Your task to perform on an android device: What is the recent news? Image 0: 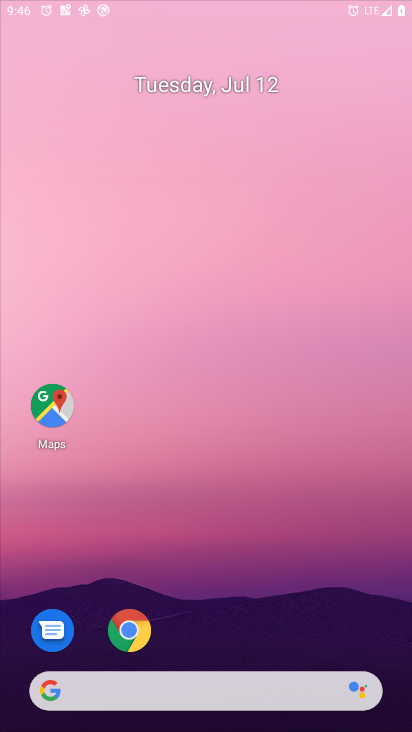
Step 0: press home button
Your task to perform on an android device: What is the recent news? Image 1: 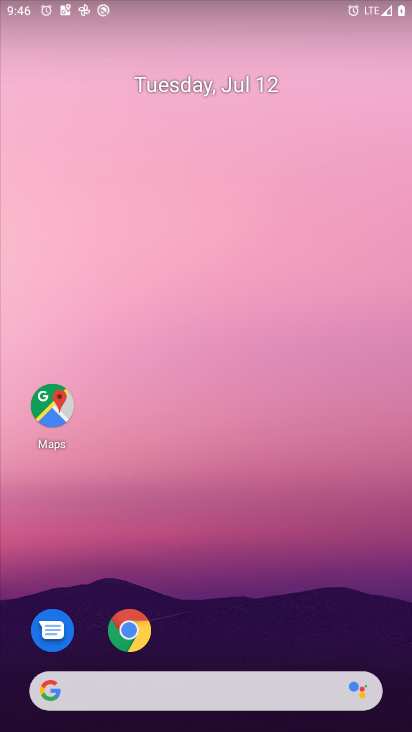
Step 1: click (179, 701)
Your task to perform on an android device: What is the recent news? Image 2: 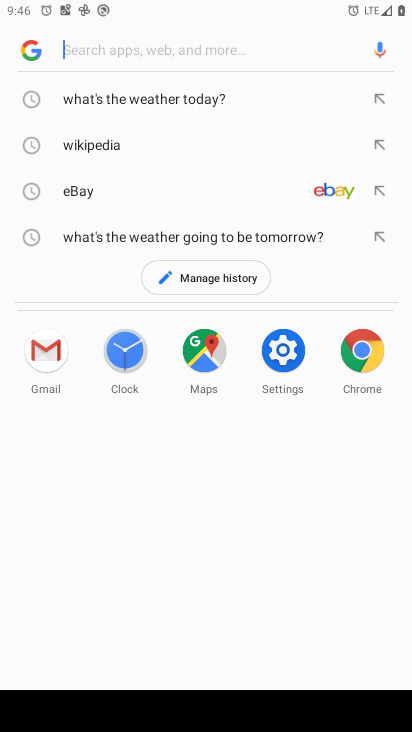
Step 2: type "recent news"
Your task to perform on an android device: What is the recent news? Image 3: 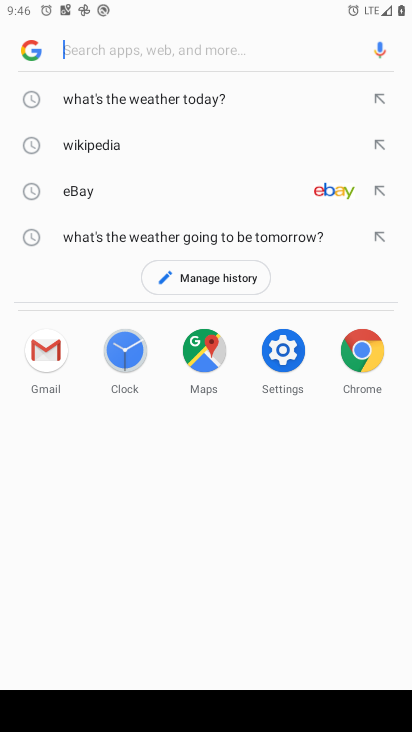
Step 3: click (120, 53)
Your task to perform on an android device: What is the recent news? Image 4: 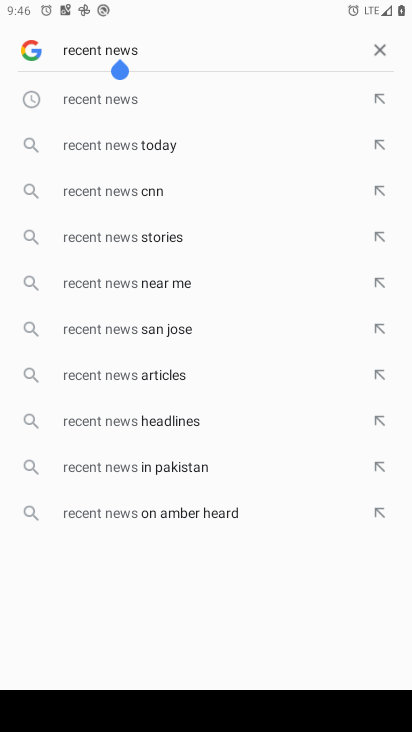
Step 4: press enter
Your task to perform on an android device: What is the recent news? Image 5: 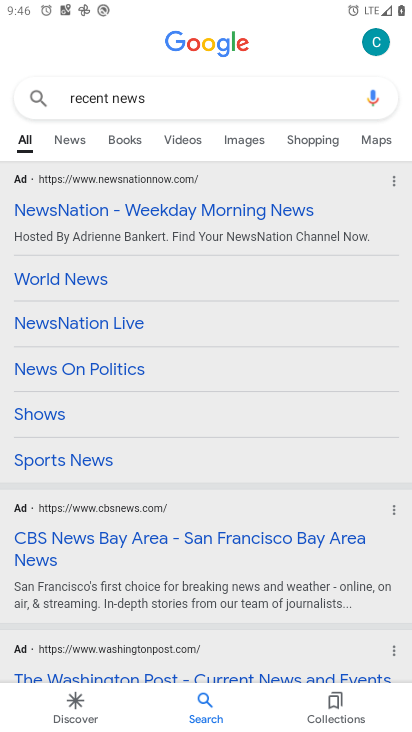
Step 5: task complete